Your task to perform on an android device: all mails in gmail Image 0: 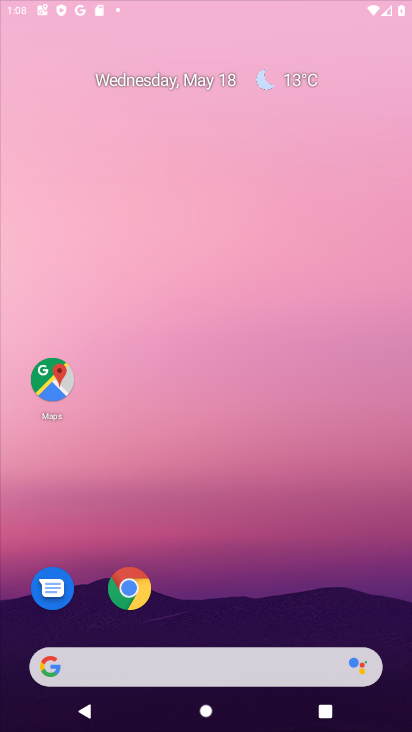
Step 0: drag from (302, 20) to (350, 7)
Your task to perform on an android device: all mails in gmail Image 1: 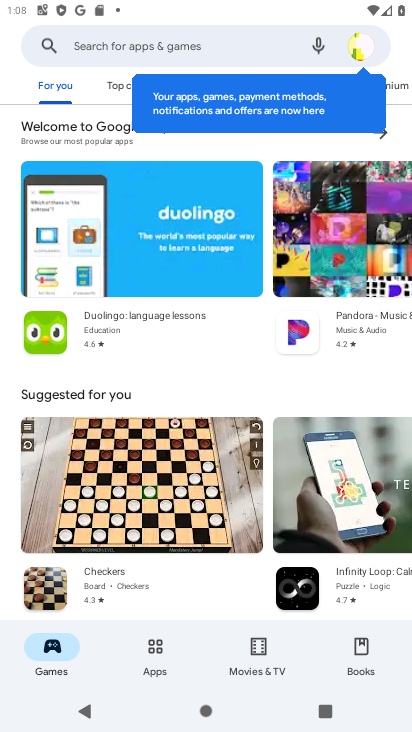
Step 1: press home button
Your task to perform on an android device: all mails in gmail Image 2: 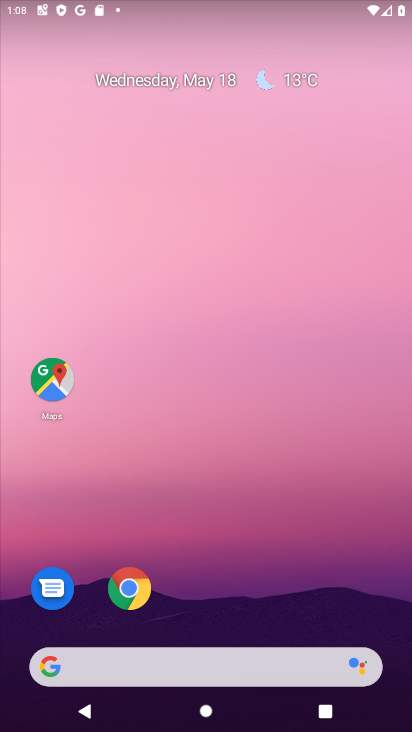
Step 2: drag from (208, 617) to (235, 95)
Your task to perform on an android device: all mails in gmail Image 3: 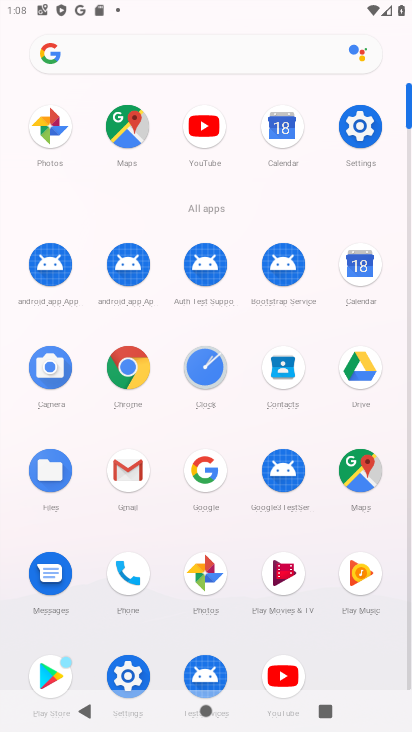
Step 3: click (129, 477)
Your task to perform on an android device: all mails in gmail Image 4: 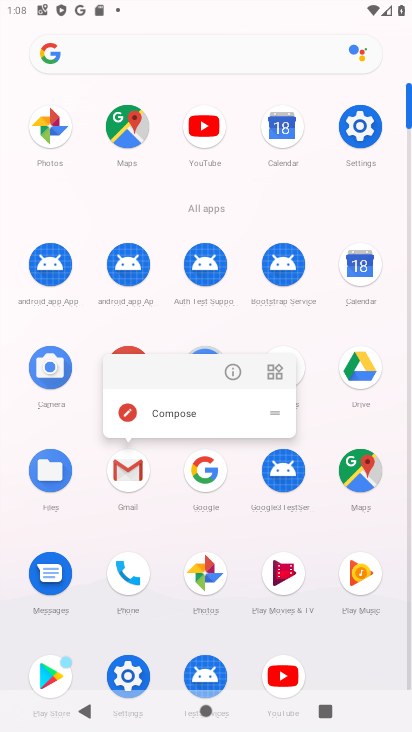
Step 4: click (238, 374)
Your task to perform on an android device: all mails in gmail Image 5: 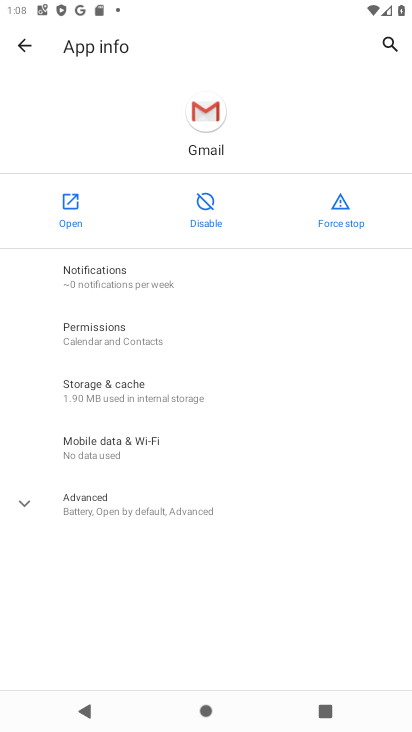
Step 5: click (70, 229)
Your task to perform on an android device: all mails in gmail Image 6: 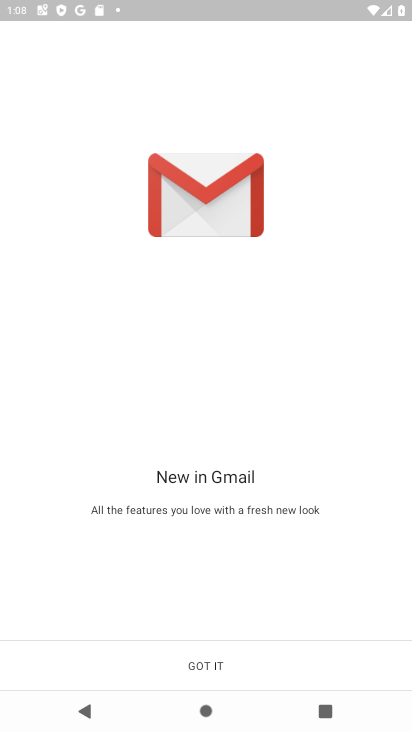
Step 6: click (190, 658)
Your task to perform on an android device: all mails in gmail Image 7: 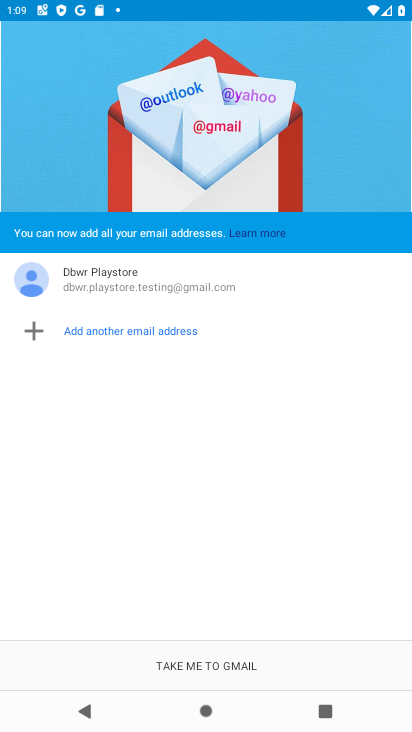
Step 7: click (166, 658)
Your task to perform on an android device: all mails in gmail Image 8: 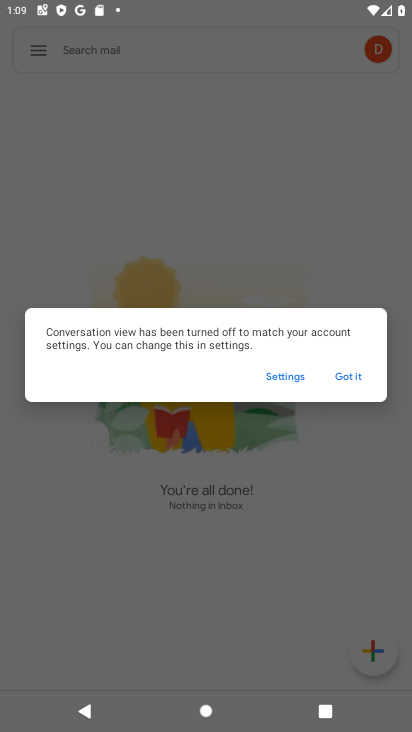
Step 8: click (335, 378)
Your task to perform on an android device: all mails in gmail Image 9: 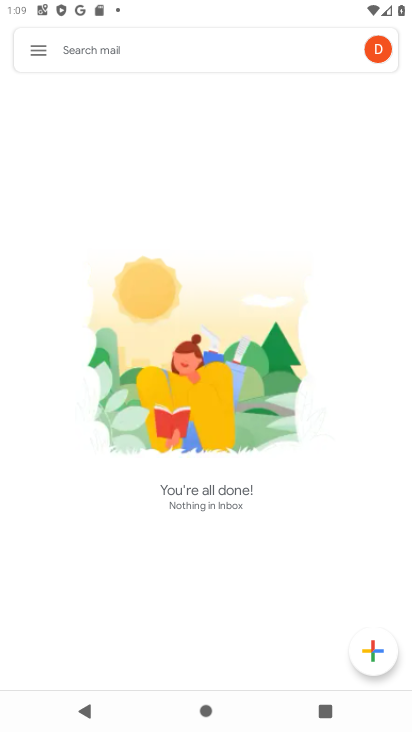
Step 9: click (32, 53)
Your task to perform on an android device: all mails in gmail Image 10: 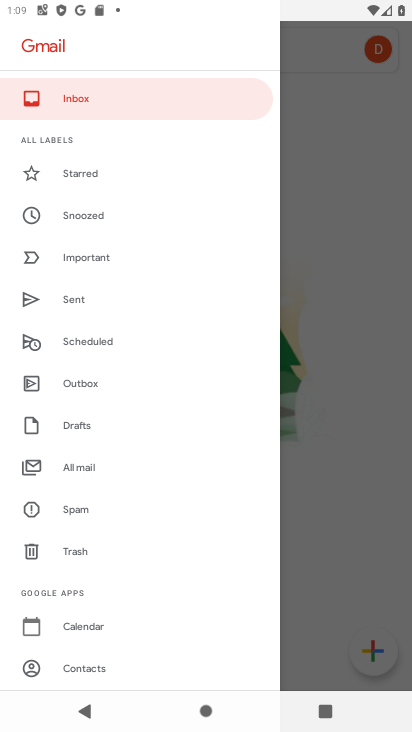
Step 10: drag from (158, 513) to (229, 186)
Your task to perform on an android device: all mails in gmail Image 11: 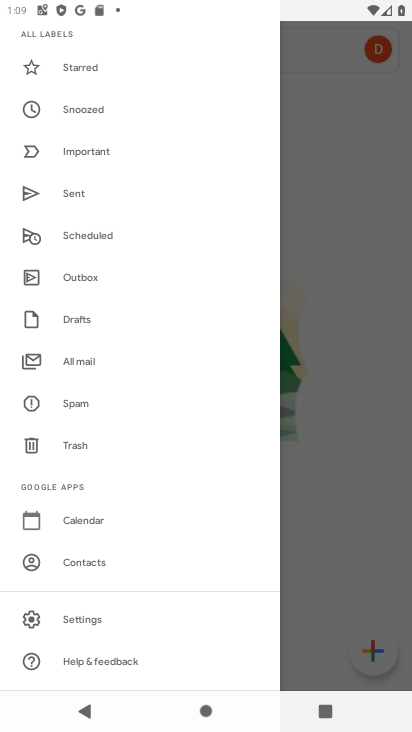
Step 11: click (95, 367)
Your task to perform on an android device: all mails in gmail Image 12: 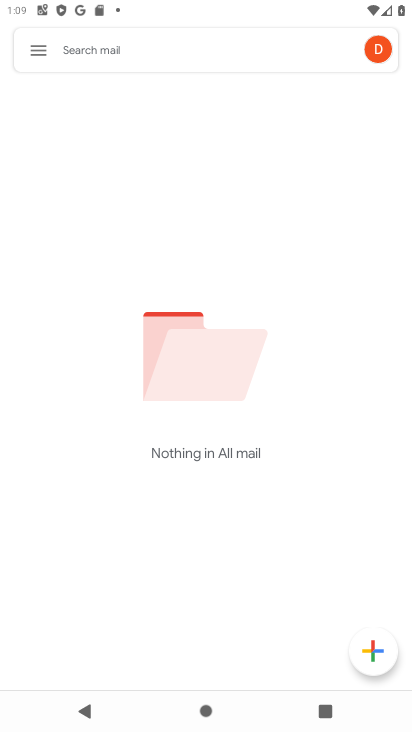
Step 12: task complete